Your task to perform on an android device: toggle translation in the chrome app Image 0: 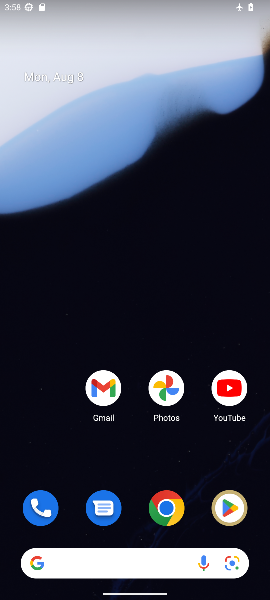
Step 0: click (173, 508)
Your task to perform on an android device: toggle translation in the chrome app Image 1: 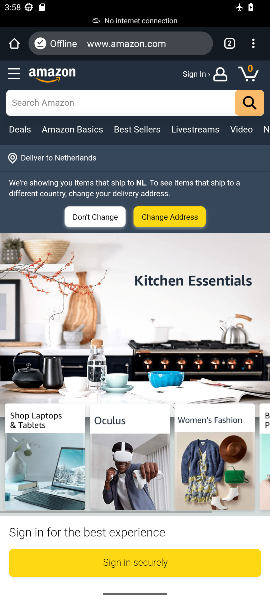
Step 1: click (256, 46)
Your task to perform on an android device: toggle translation in the chrome app Image 2: 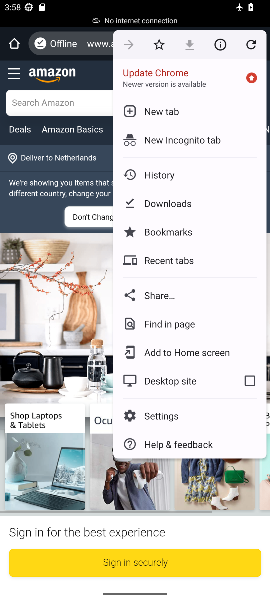
Step 2: click (160, 411)
Your task to perform on an android device: toggle translation in the chrome app Image 3: 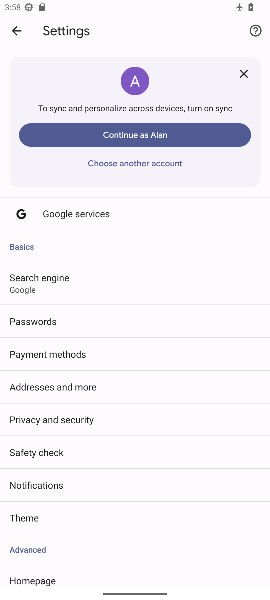
Step 3: drag from (76, 534) to (73, 174)
Your task to perform on an android device: toggle translation in the chrome app Image 4: 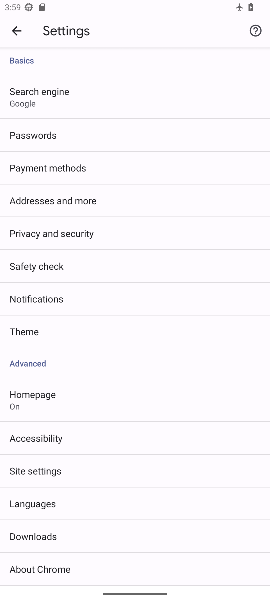
Step 4: click (38, 498)
Your task to perform on an android device: toggle translation in the chrome app Image 5: 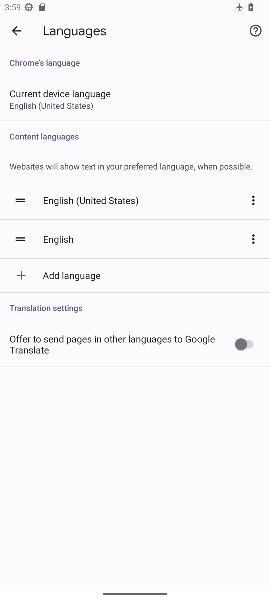
Step 5: click (244, 349)
Your task to perform on an android device: toggle translation in the chrome app Image 6: 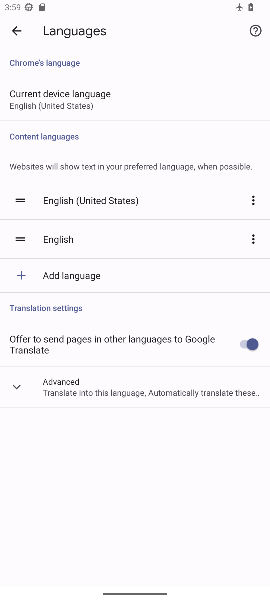
Step 6: task complete